Your task to perform on an android device: toggle improve location accuracy Image 0: 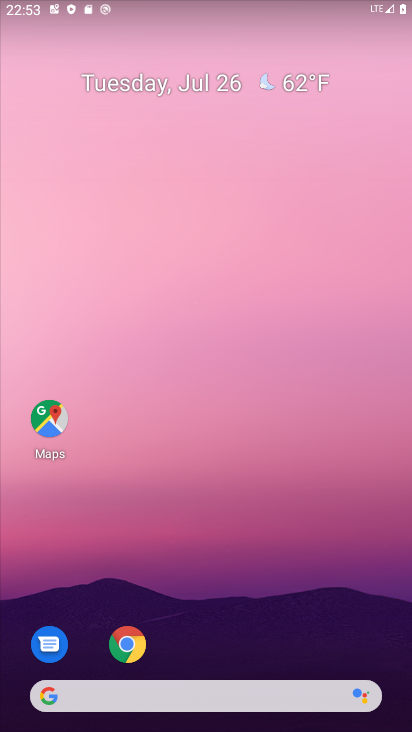
Step 0: drag from (239, 668) to (262, 12)
Your task to perform on an android device: toggle improve location accuracy Image 1: 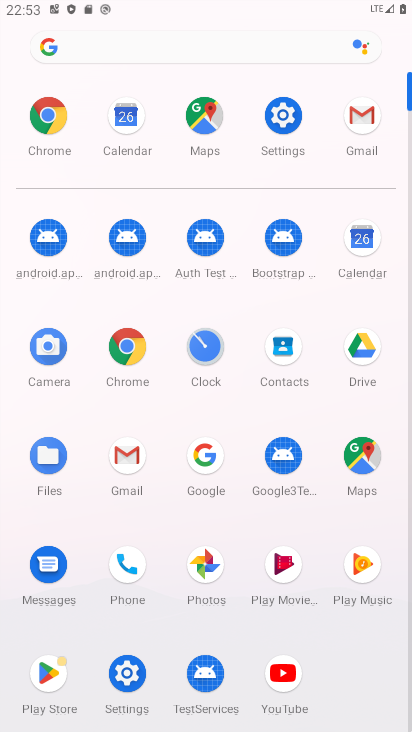
Step 1: click (284, 109)
Your task to perform on an android device: toggle improve location accuracy Image 2: 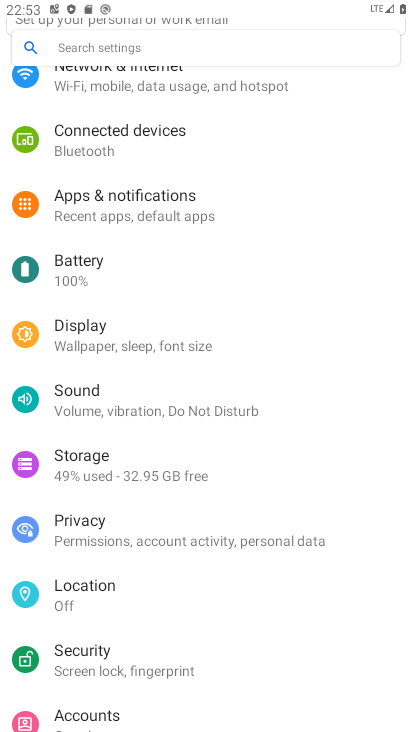
Step 2: click (79, 600)
Your task to perform on an android device: toggle improve location accuracy Image 3: 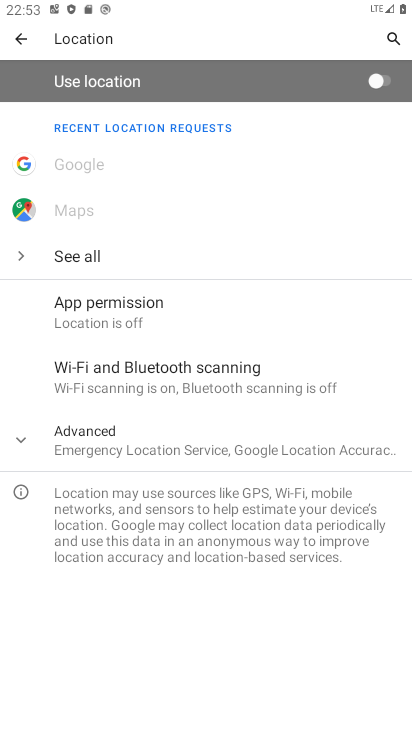
Step 3: click (20, 441)
Your task to perform on an android device: toggle improve location accuracy Image 4: 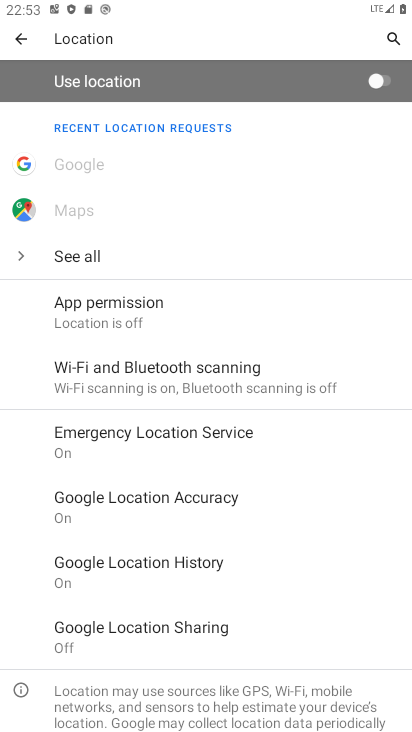
Step 4: click (103, 506)
Your task to perform on an android device: toggle improve location accuracy Image 5: 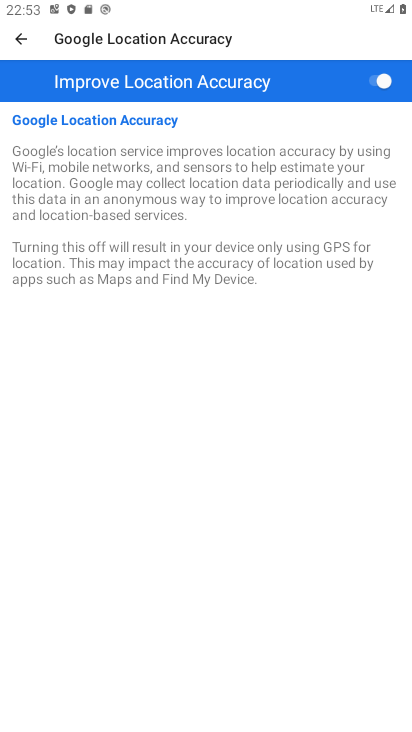
Step 5: click (370, 87)
Your task to perform on an android device: toggle improve location accuracy Image 6: 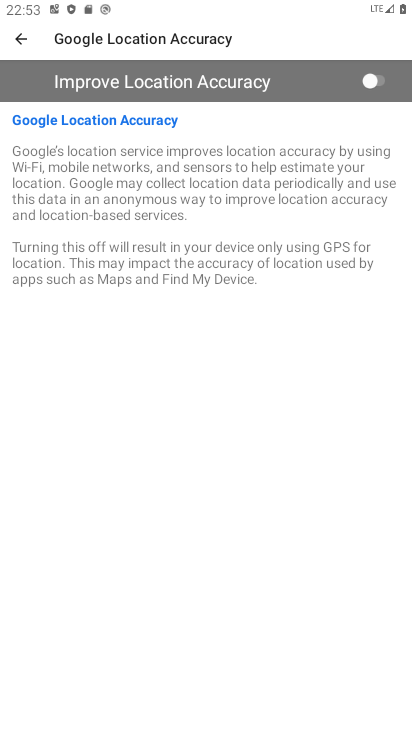
Step 6: task complete